Your task to perform on an android device: change the clock display to analog Image 0: 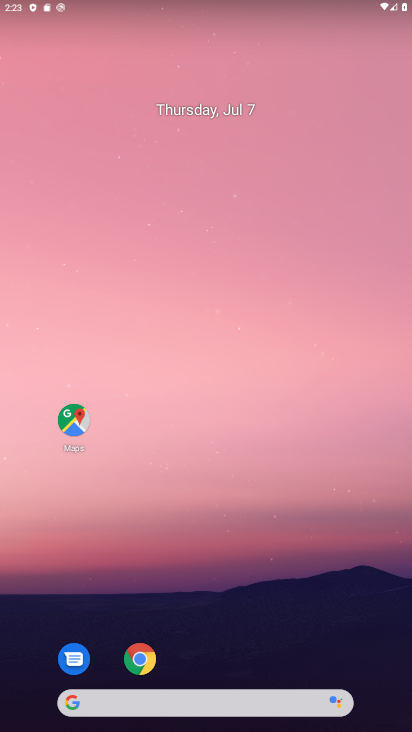
Step 0: drag from (47, 714) to (212, 15)
Your task to perform on an android device: change the clock display to analog Image 1: 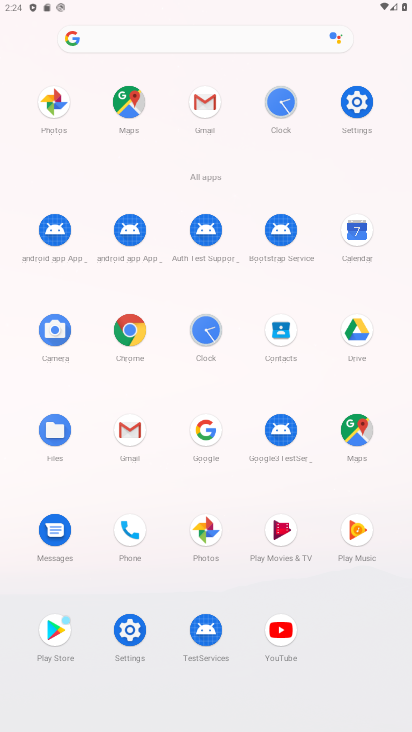
Step 1: click (207, 337)
Your task to perform on an android device: change the clock display to analog Image 2: 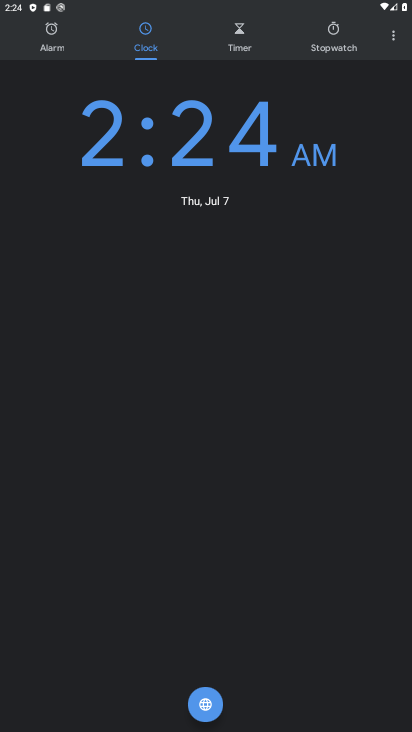
Step 2: click (398, 33)
Your task to perform on an android device: change the clock display to analog Image 3: 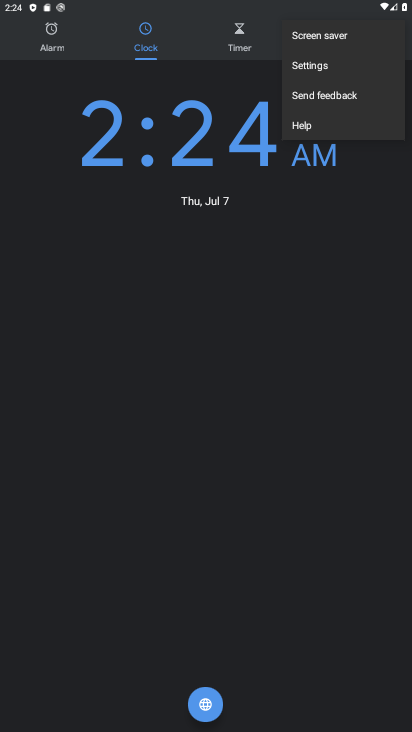
Step 3: click (329, 64)
Your task to perform on an android device: change the clock display to analog Image 4: 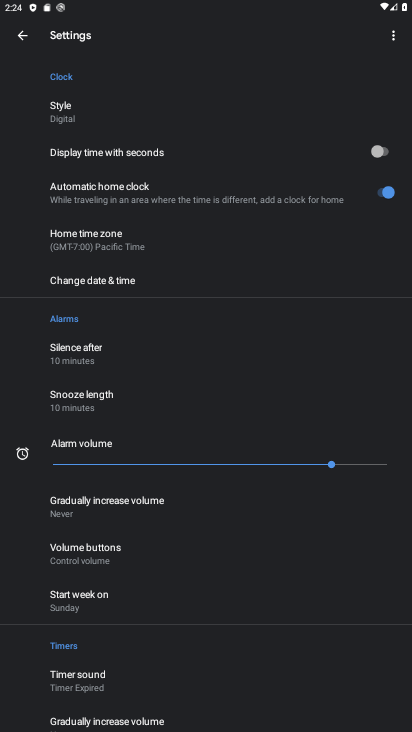
Step 4: click (87, 112)
Your task to perform on an android device: change the clock display to analog Image 5: 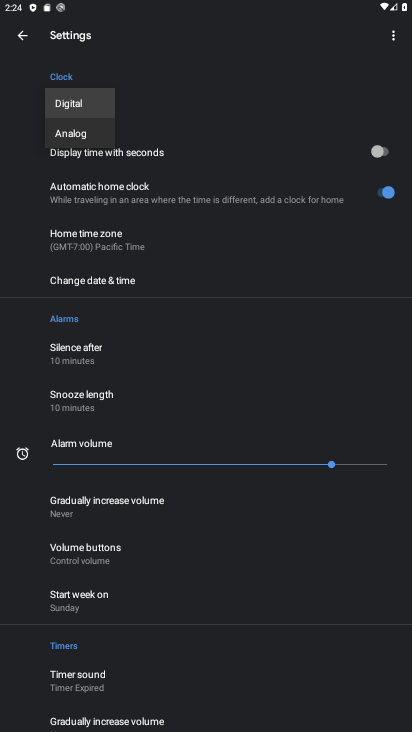
Step 5: click (84, 130)
Your task to perform on an android device: change the clock display to analog Image 6: 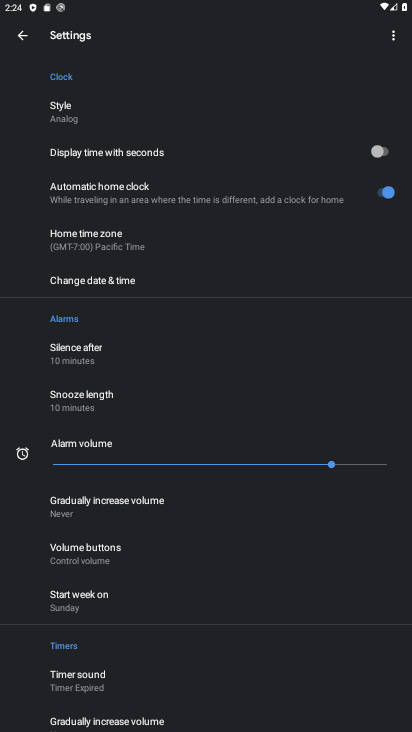
Step 6: task complete